Your task to perform on an android device: toggle javascript in the chrome app Image 0: 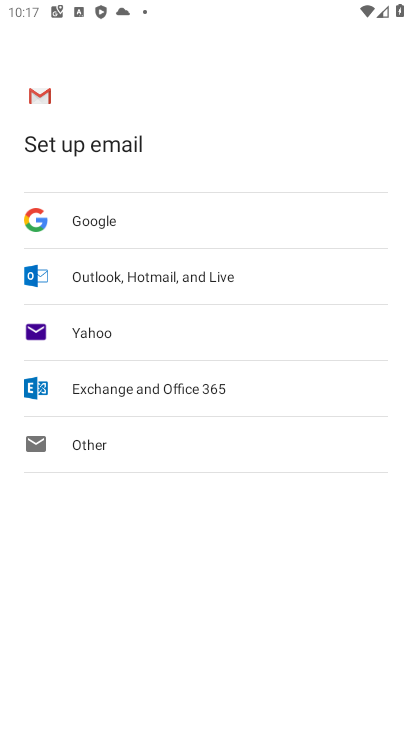
Step 0: press home button
Your task to perform on an android device: toggle javascript in the chrome app Image 1: 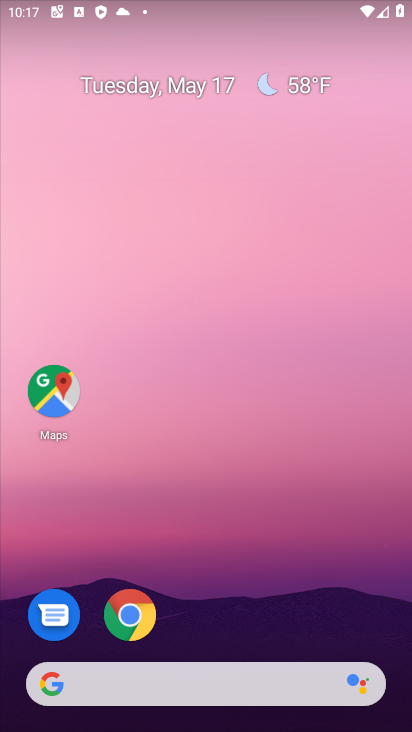
Step 1: click (132, 612)
Your task to perform on an android device: toggle javascript in the chrome app Image 2: 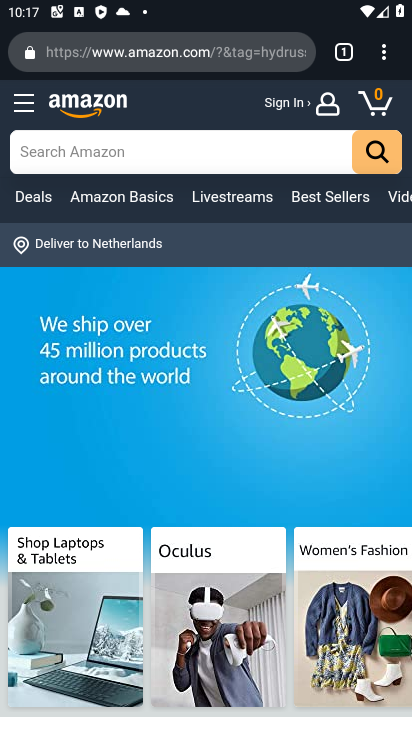
Step 2: click (382, 58)
Your task to perform on an android device: toggle javascript in the chrome app Image 3: 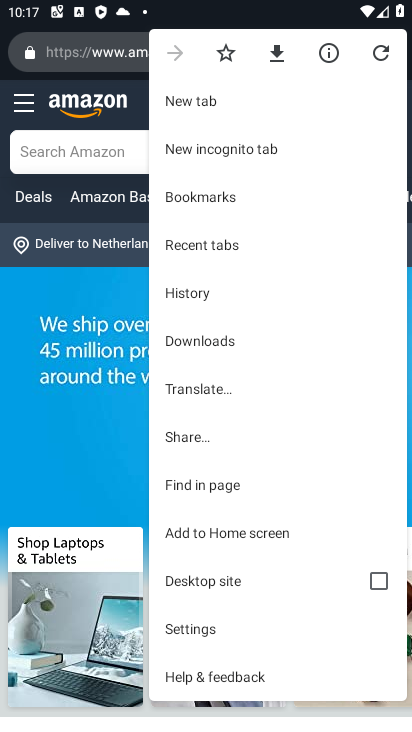
Step 3: click (208, 627)
Your task to perform on an android device: toggle javascript in the chrome app Image 4: 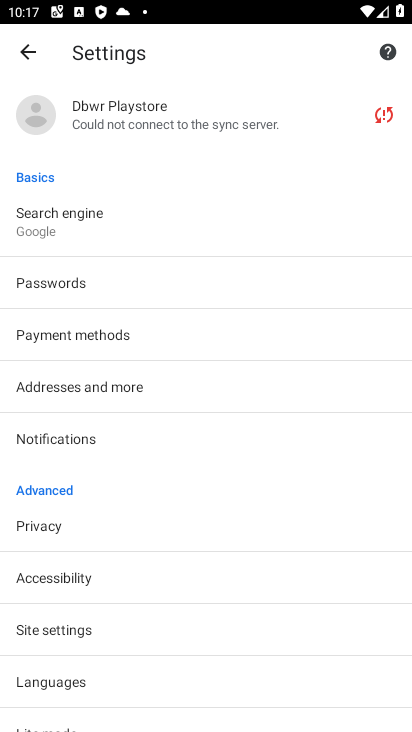
Step 4: click (68, 631)
Your task to perform on an android device: toggle javascript in the chrome app Image 5: 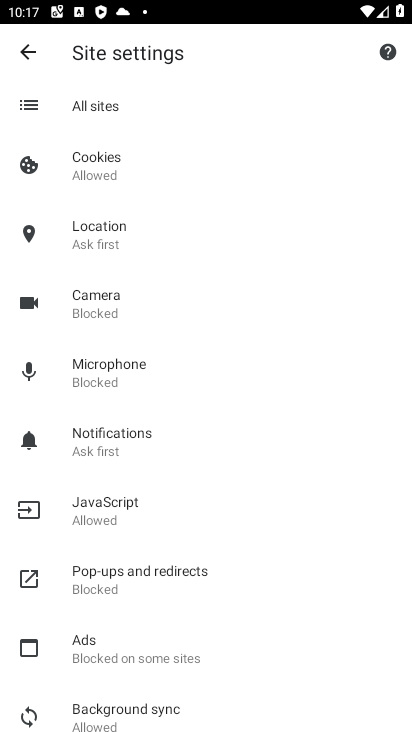
Step 5: click (98, 511)
Your task to perform on an android device: toggle javascript in the chrome app Image 6: 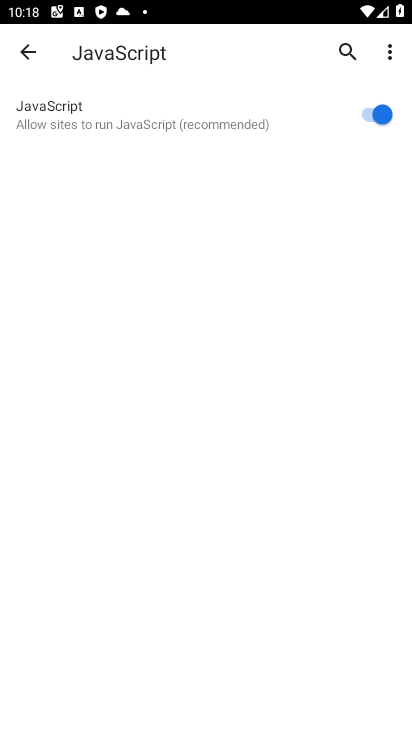
Step 6: click (366, 107)
Your task to perform on an android device: toggle javascript in the chrome app Image 7: 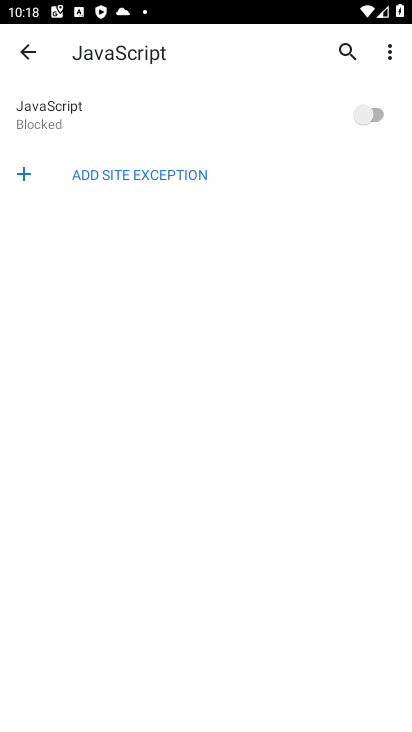
Step 7: task complete